Your task to perform on an android device: Open Google Chrome and open the bookmarks view Image 0: 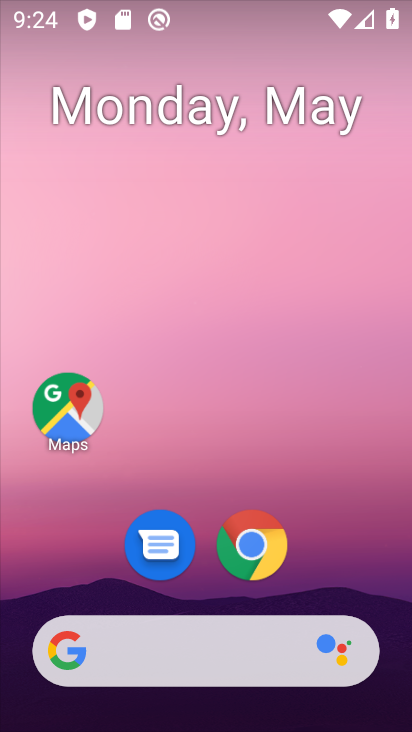
Step 0: click (257, 562)
Your task to perform on an android device: Open Google Chrome and open the bookmarks view Image 1: 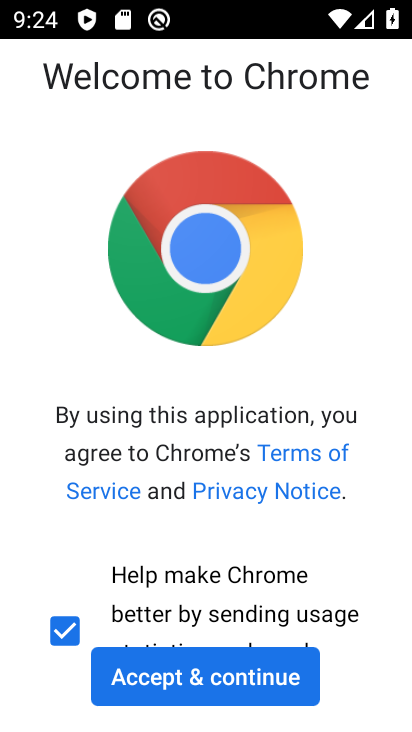
Step 1: click (243, 685)
Your task to perform on an android device: Open Google Chrome and open the bookmarks view Image 2: 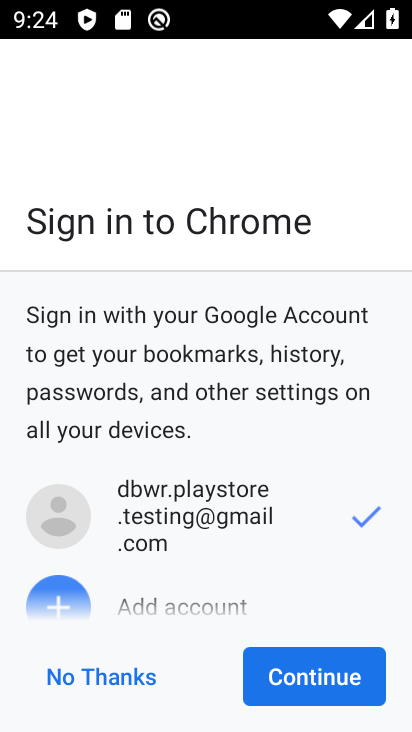
Step 2: click (288, 679)
Your task to perform on an android device: Open Google Chrome and open the bookmarks view Image 3: 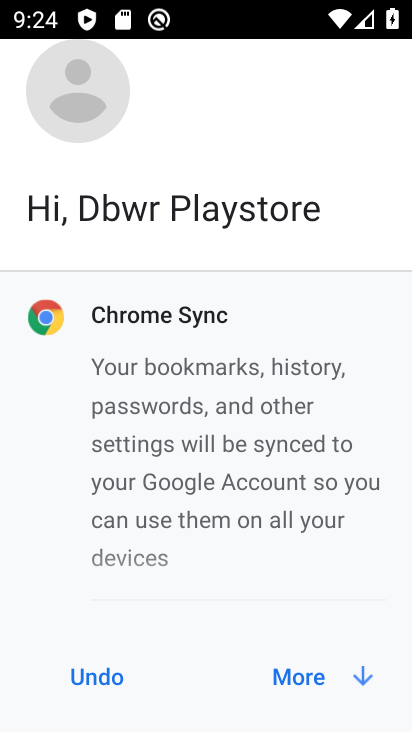
Step 3: click (289, 681)
Your task to perform on an android device: Open Google Chrome and open the bookmarks view Image 4: 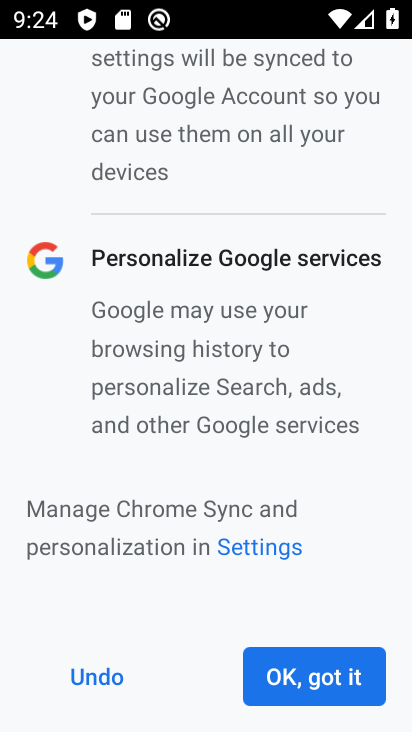
Step 4: click (291, 682)
Your task to perform on an android device: Open Google Chrome and open the bookmarks view Image 5: 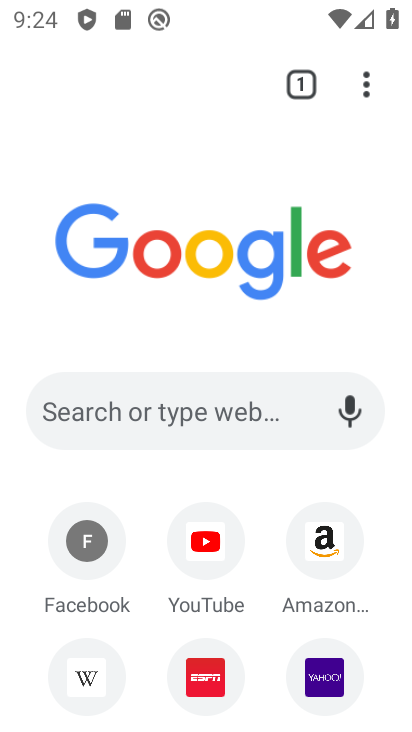
Step 5: task complete